Your task to perform on an android device: toggle airplane mode Image 0: 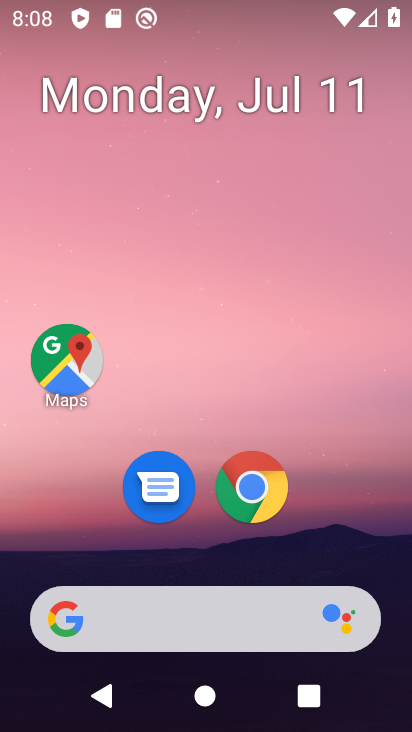
Step 0: drag from (349, 8) to (265, 586)
Your task to perform on an android device: toggle airplane mode Image 1: 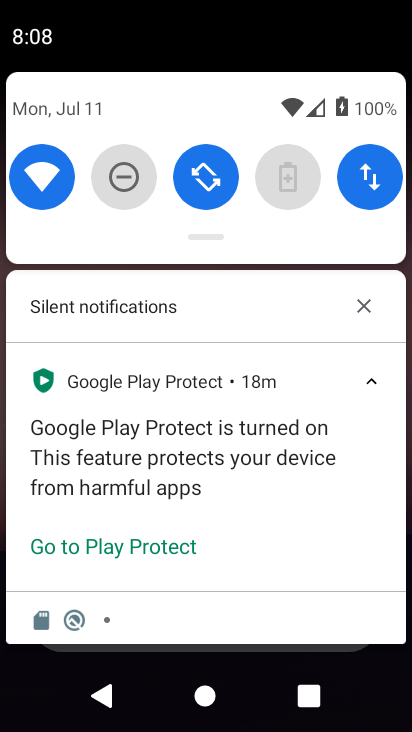
Step 1: drag from (193, 231) to (211, 707)
Your task to perform on an android device: toggle airplane mode Image 2: 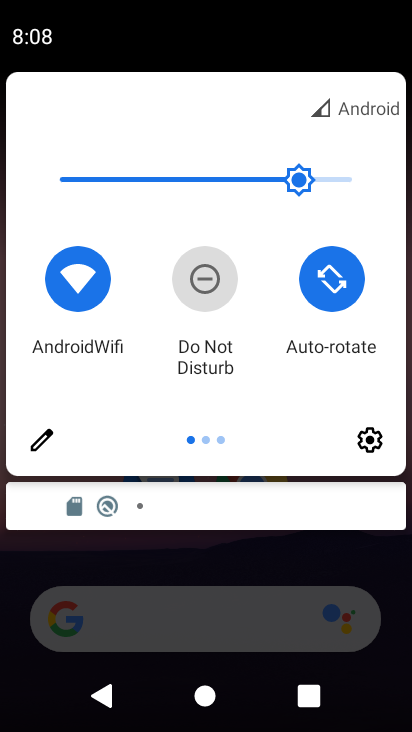
Step 2: drag from (355, 300) to (8, 285)
Your task to perform on an android device: toggle airplane mode Image 3: 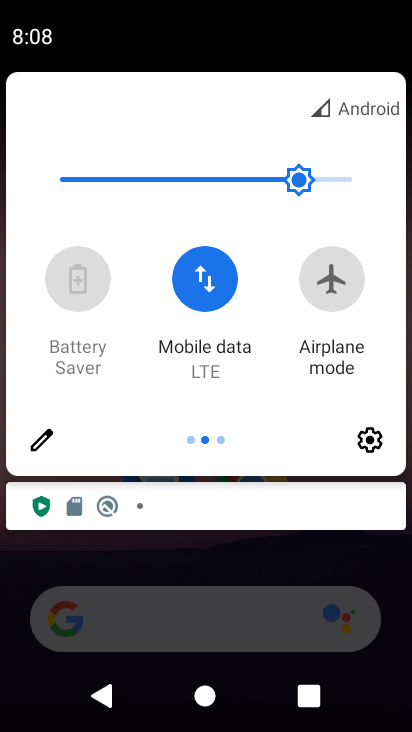
Step 3: click (351, 280)
Your task to perform on an android device: toggle airplane mode Image 4: 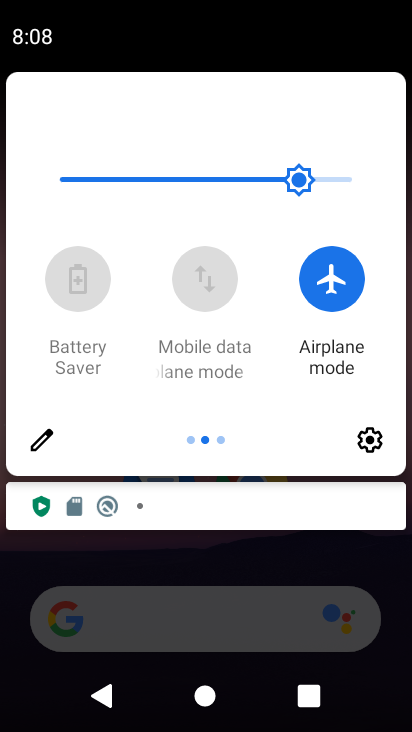
Step 4: task complete